Your task to perform on an android device: Open Android settings Image 0: 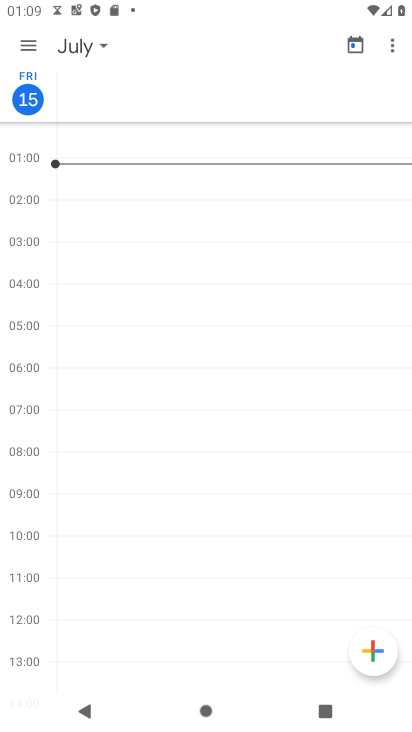
Step 0: press back button
Your task to perform on an android device: Open Android settings Image 1: 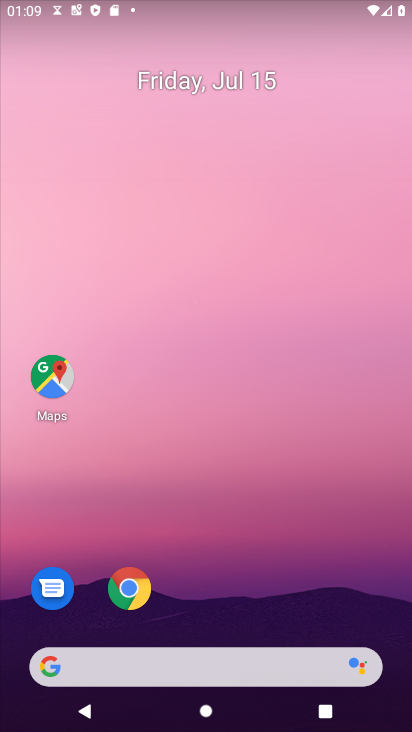
Step 1: drag from (257, 603) to (302, 2)
Your task to perform on an android device: Open Android settings Image 2: 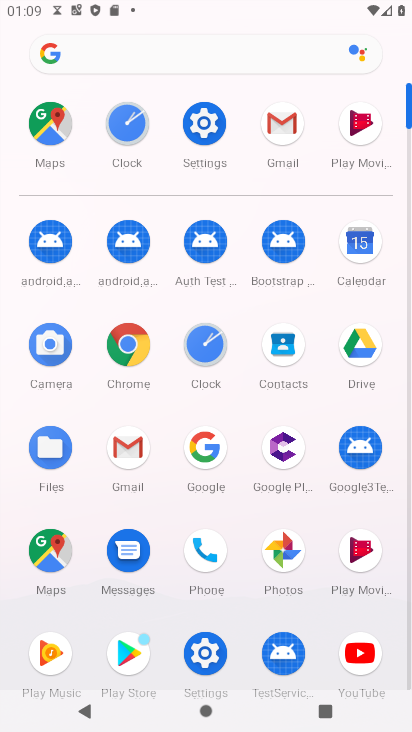
Step 2: click (179, 130)
Your task to perform on an android device: Open Android settings Image 3: 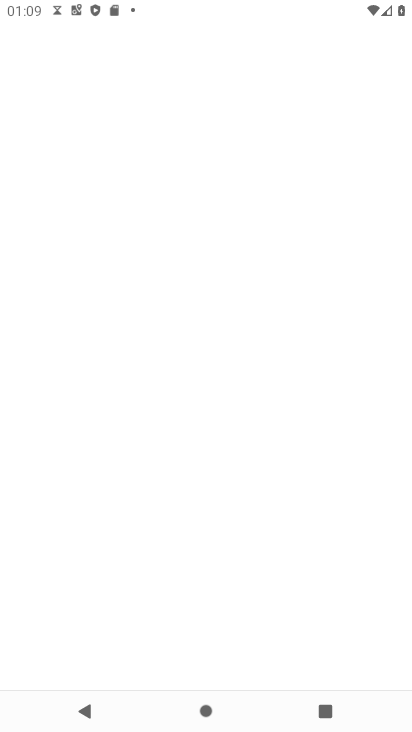
Step 3: click (207, 123)
Your task to perform on an android device: Open Android settings Image 4: 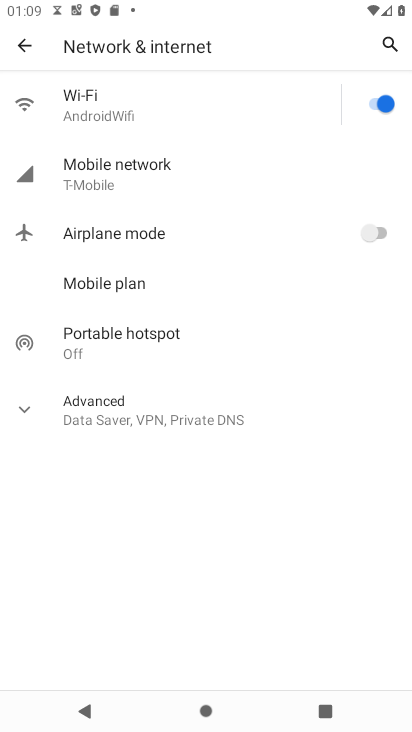
Step 4: click (13, 39)
Your task to perform on an android device: Open Android settings Image 5: 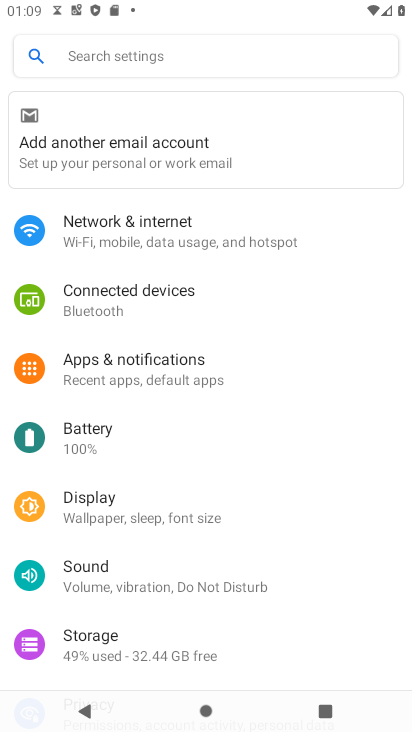
Step 5: drag from (168, 634) to (272, 9)
Your task to perform on an android device: Open Android settings Image 6: 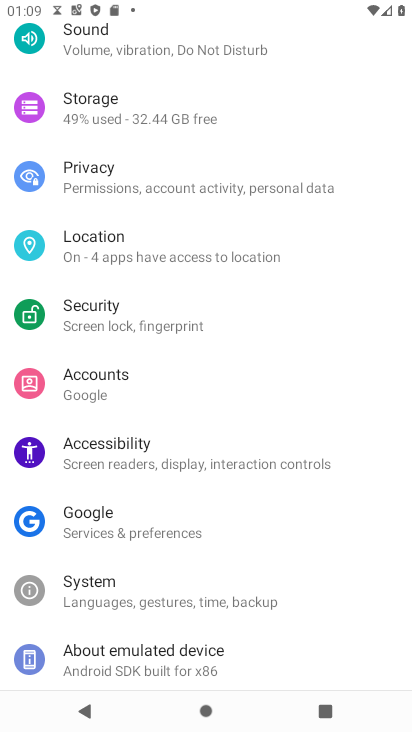
Step 6: drag from (184, 494) to (338, 46)
Your task to perform on an android device: Open Android settings Image 7: 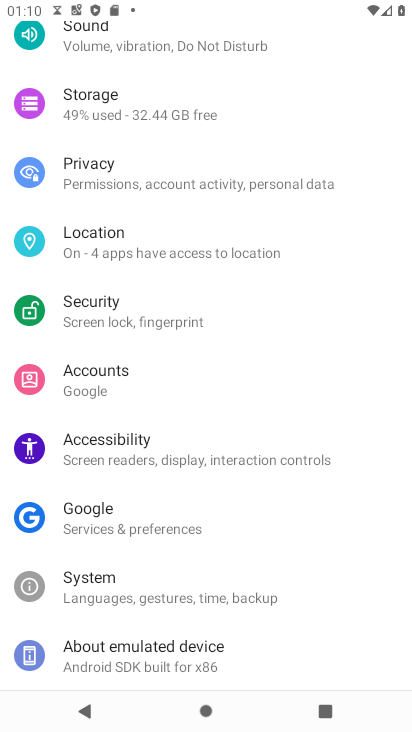
Step 7: click (181, 649)
Your task to perform on an android device: Open Android settings Image 8: 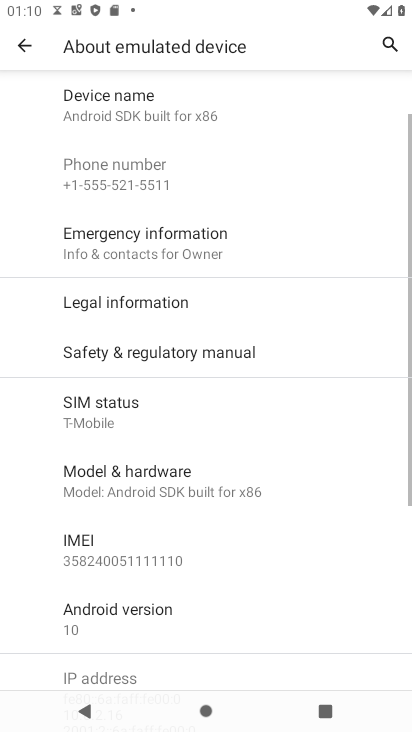
Step 8: click (110, 611)
Your task to perform on an android device: Open Android settings Image 9: 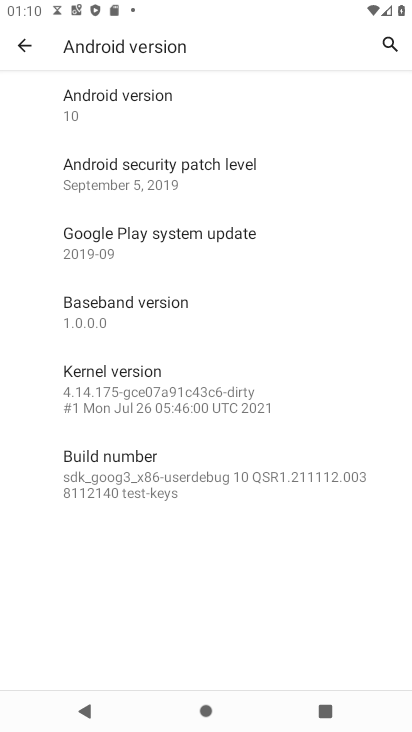
Step 9: task complete